Your task to perform on an android device: turn on wifi Image 0: 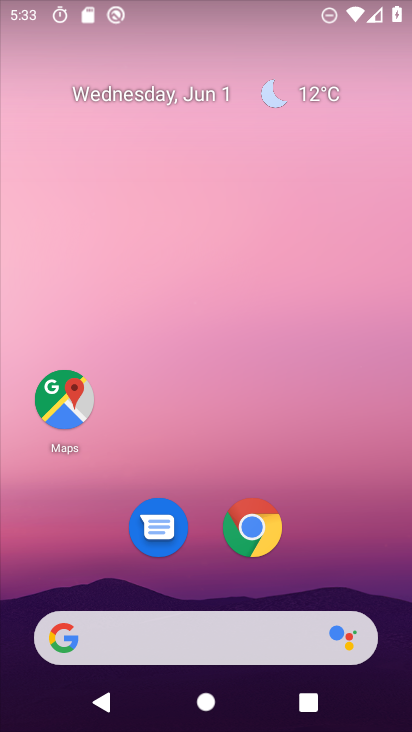
Step 0: drag from (256, 0) to (209, 481)
Your task to perform on an android device: turn on wifi Image 1: 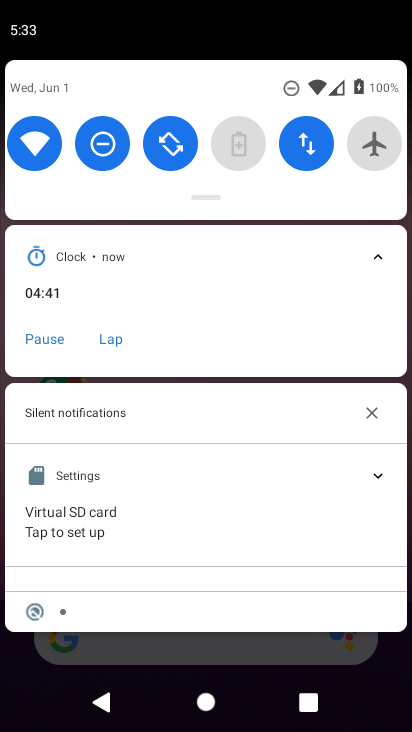
Step 1: task complete